Your task to perform on an android device: turn on bluetooth scan Image 0: 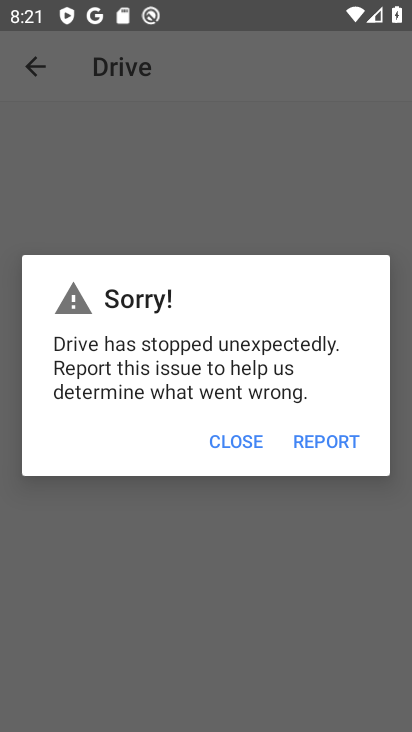
Step 0: drag from (215, 613) to (129, 40)
Your task to perform on an android device: turn on bluetooth scan Image 1: 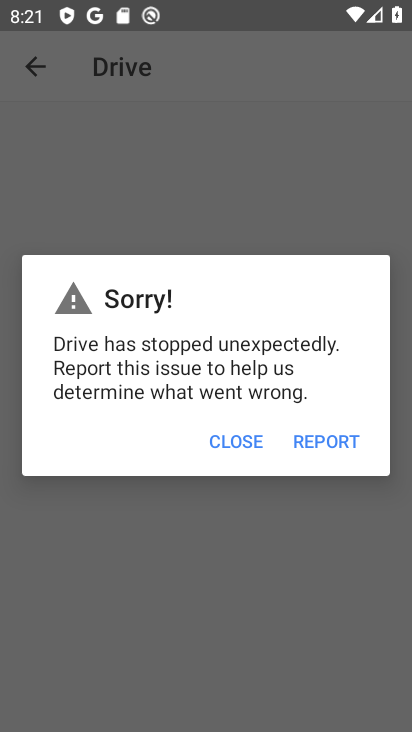
Step 1: press home button
Your task to perform on an android device: turn on bluetooth scan Image 2: 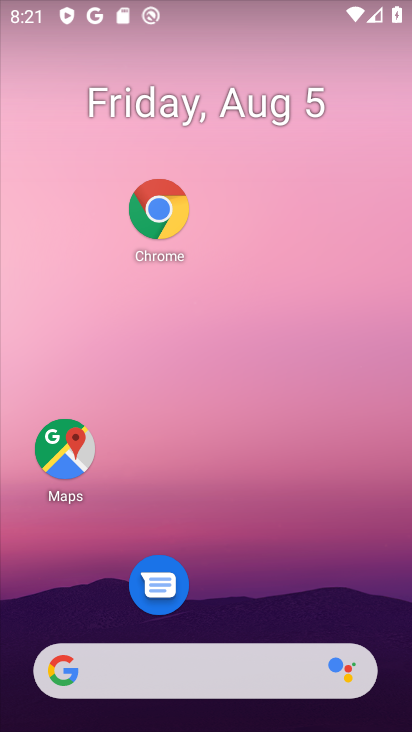
Step 2: drag from (238, 627) to (215, 6)
Your task to perform on an android device: turn on bluetooth scan Image 3: 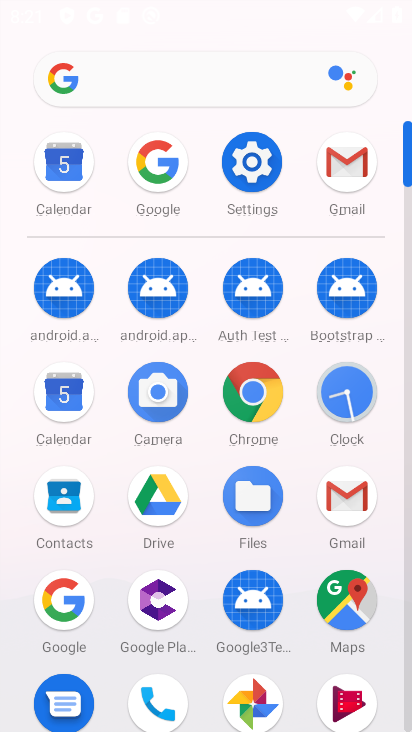
Step 3: click (238, 166)
Your task to perform on an android device: turn on bluetooth scan Image 4: 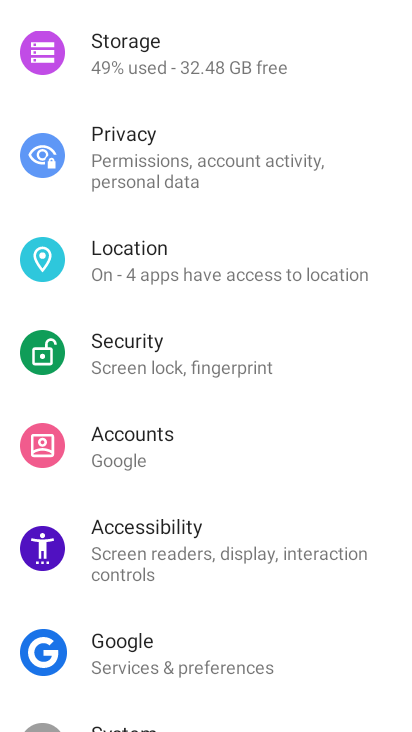
Step 4: click (178, 304)
Your task to perform on an android device: turn on bluetooth scan Image 5: 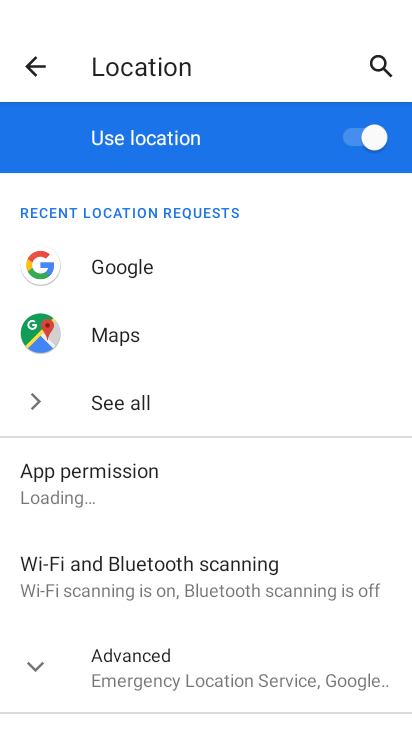
Step 5: click (170, 559)
Your task to perform on an android device: turn on bluetooth scan Image 6: 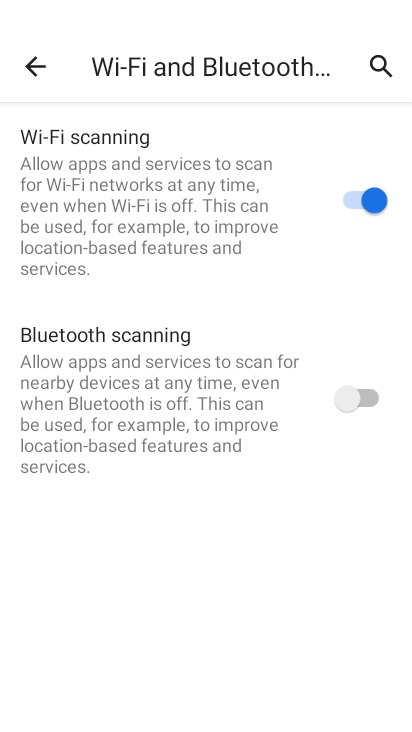
Step 6: click (326, 415)
Your task to perform on an android device: turn on bluetooth scan Image 7: 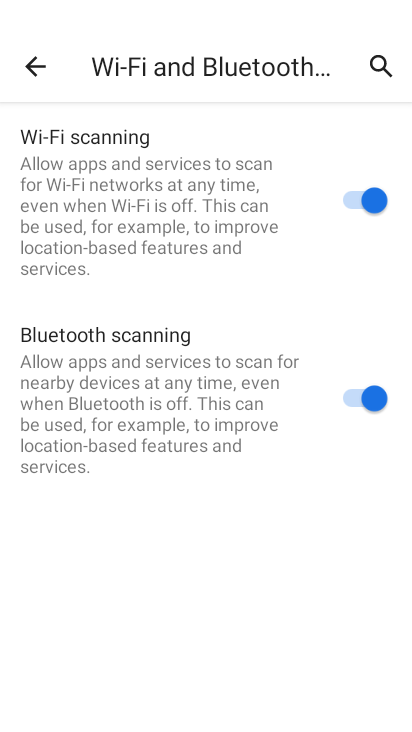
Step 7: task complete